Your task to perform on an android device: change notification settings in the gmail app Image 0: 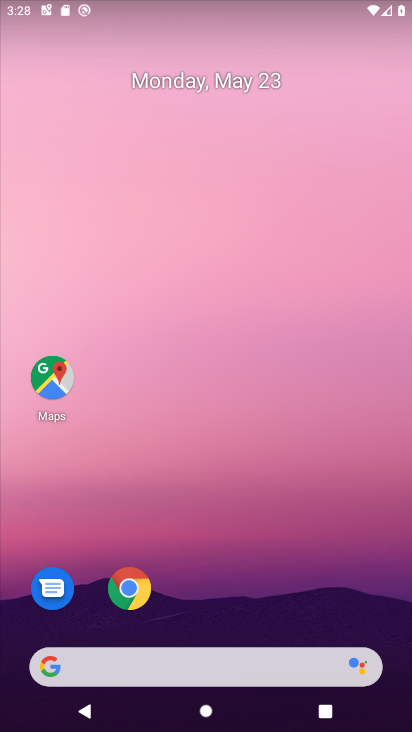
Step 0: drag from (206, 615) to (210, 201)
Your task to perform on an android device: change notification settings in the gmail app Image 1: 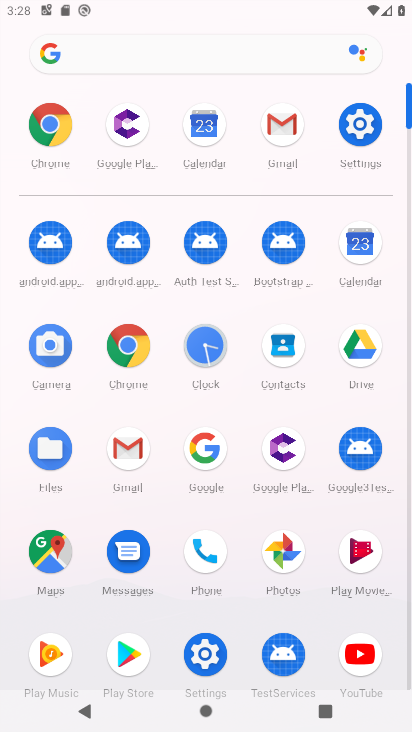
Step 1: click (126, 456)
Your task to perform on an android device: change notification settings in the gmail app Image 2: 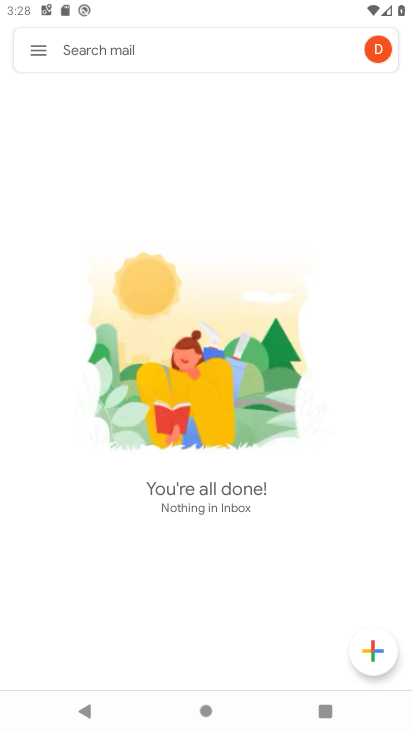
Step 2: drag from (224, 636) to (240, 193)
Your task to perform on an android device: change notification settings in the gmail app Image 3: 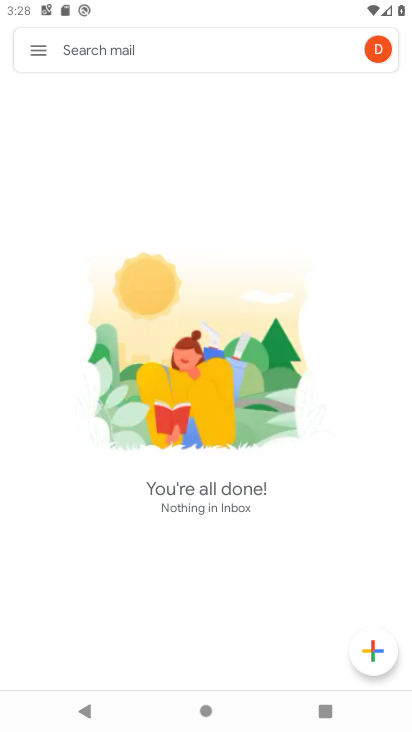
Step 3: click (26, 39)
Your task to perform on an android device: change notification settings in the gmail app Image 4: 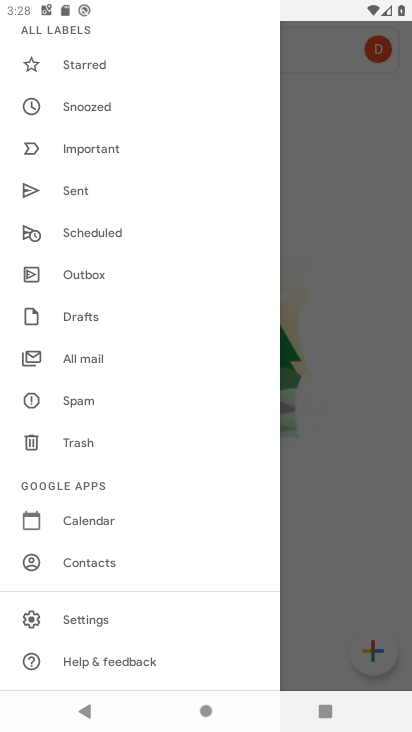
Step 4: drag from (124, 579) to (139, 140)
Your task to perform on an android device: change notification settings in the gmail app Image 5: 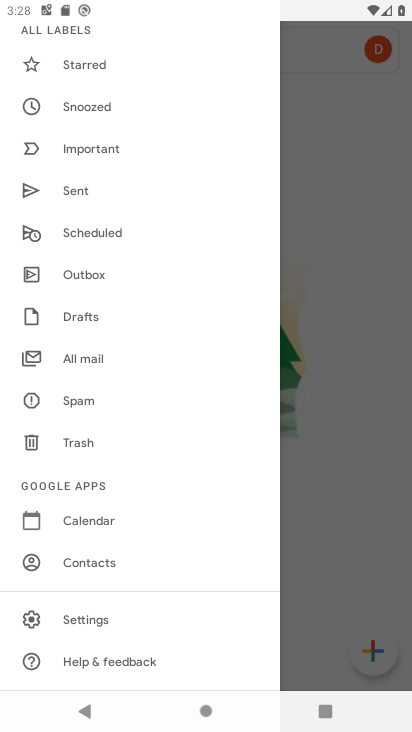
Step 5: click (82, 618)
Your task to perform on an android device: change notification settings in the gmail app Image 6: 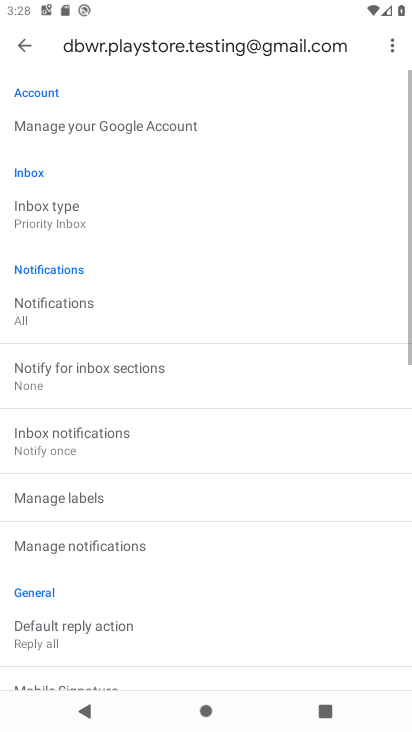
Step 6: drag from (155, 552) to (277, 111)
Your task to perform on an android device: change notification settings in the gmail app Image 7: 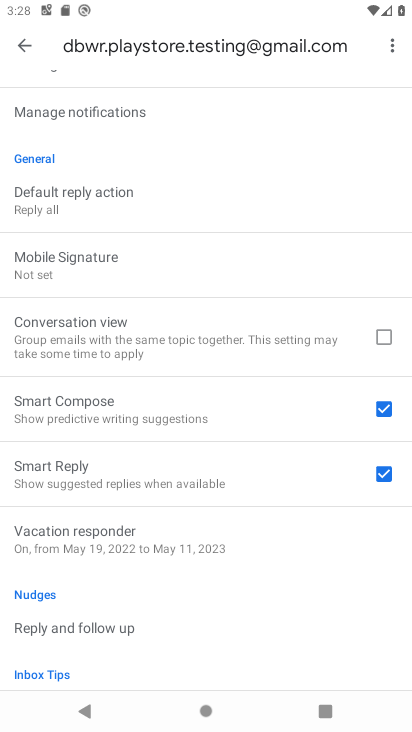
Step 7: click (115, 115)
Your task to perform on an android device: change notification settings in the gmail app Image 8: 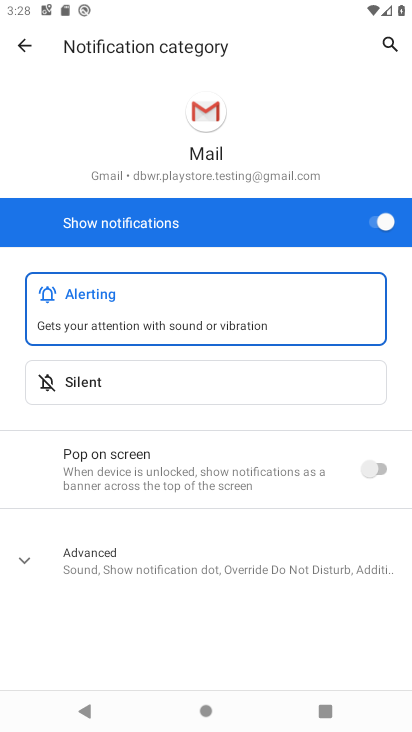
Step 8: click (365, 209)
Your task to perform on an android device: change notification settings in the gmail app Image 9: 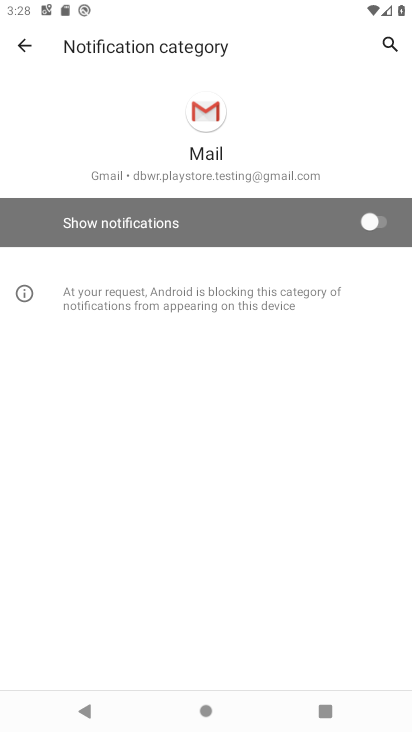
Step 9: task complete